Your task to perform on an android device: What is the recent news? Image 0: 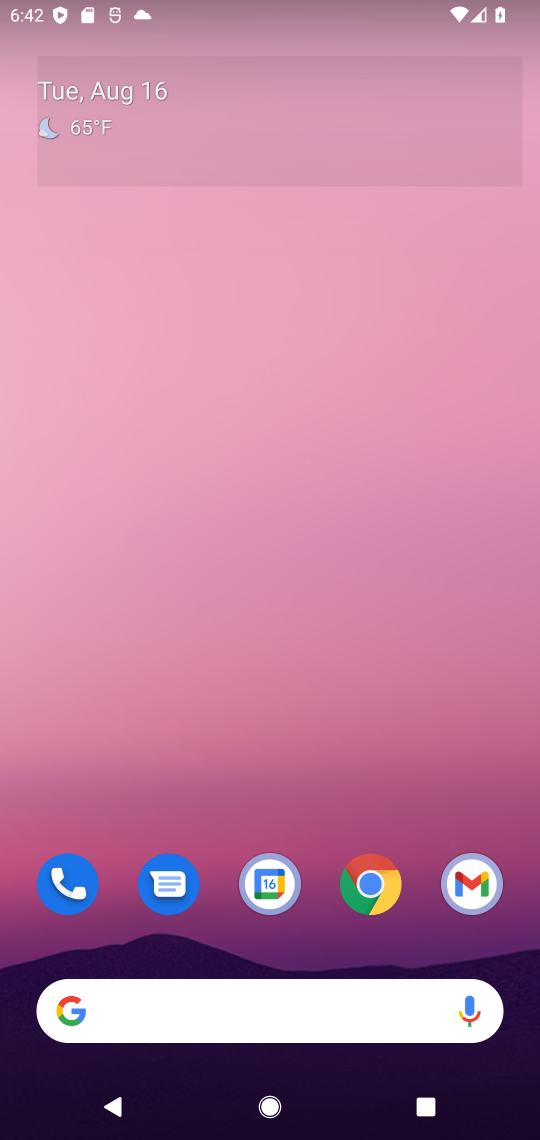
Step 0: press home button
Your task to perform on an android device: What is the recent news? Image 1: 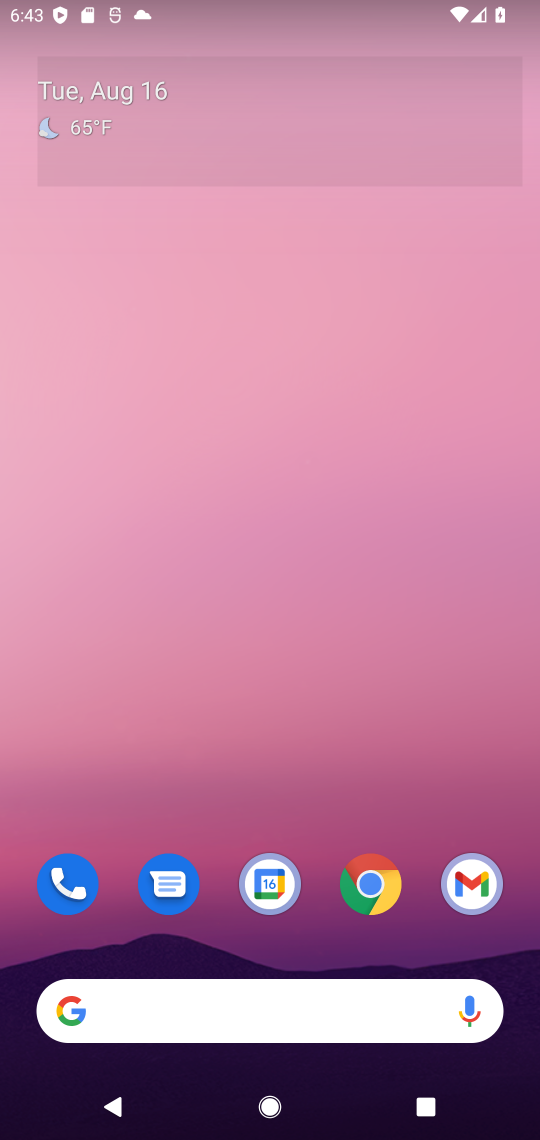
Step 1: click (70, 1009)
Your task to perform on an android device: What is the recent news? Image 2: 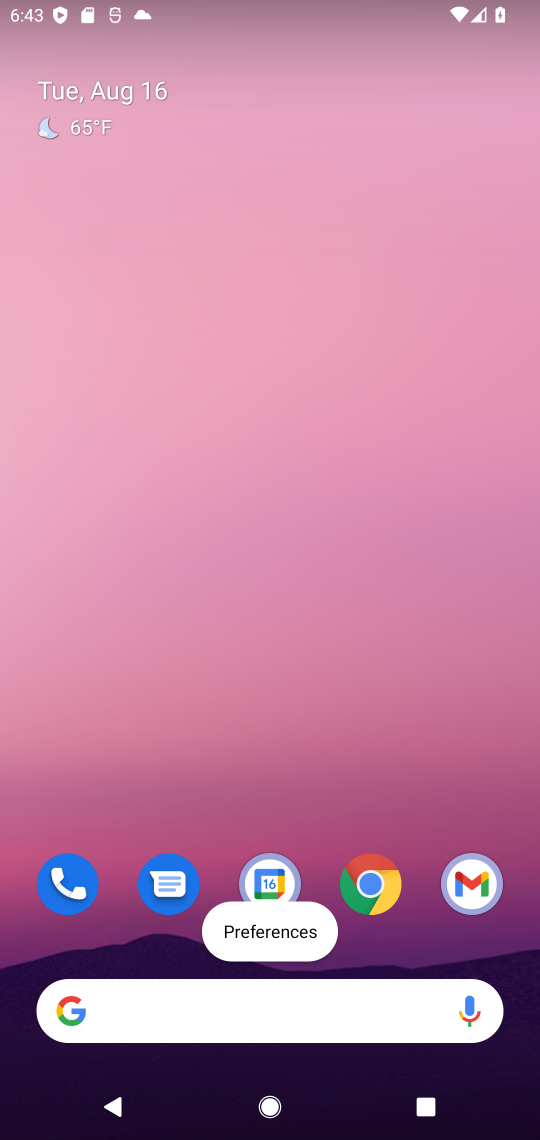
Step 2: click (60, 1009)
Your task to perform on an android device: What is the recent news? Image 3: 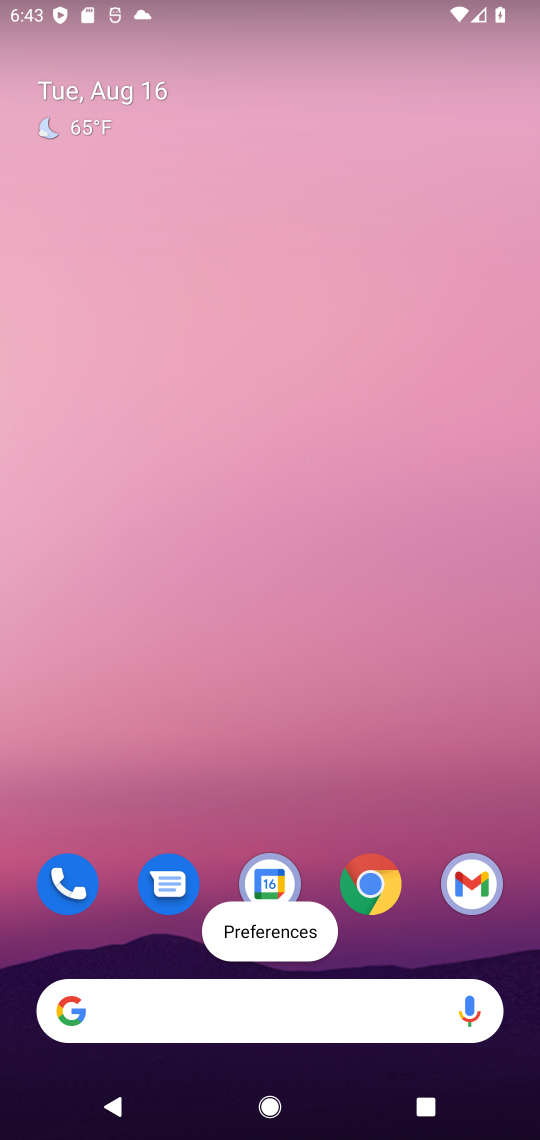
Step 3: click (72, 1019)
Your task to perform on an android device: What is the recent news? Image 4: 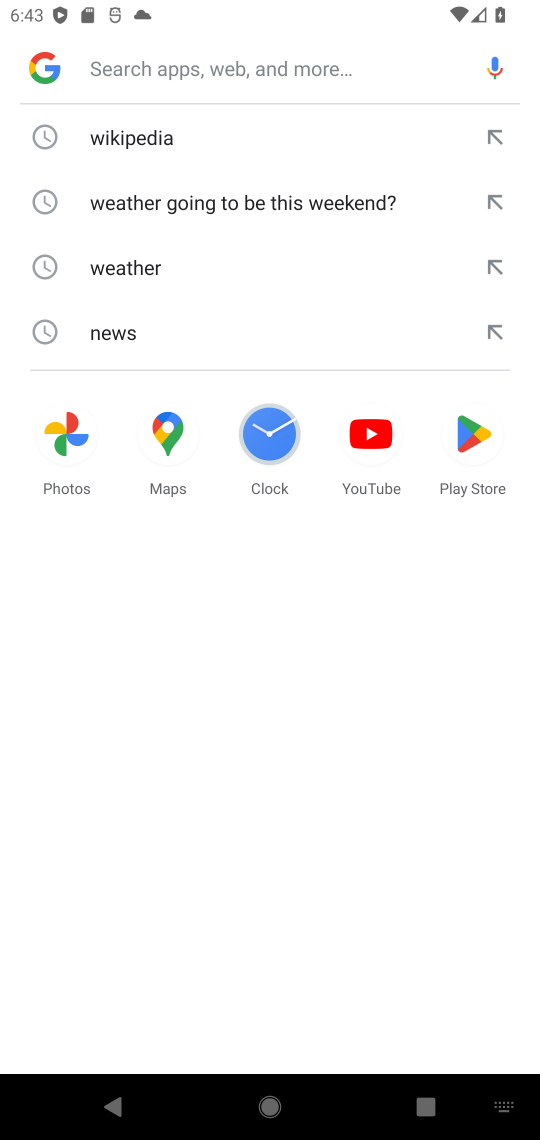
Step 4: type "recent news?"
Your task to perform on an android device: What is the recent news? Image 5: 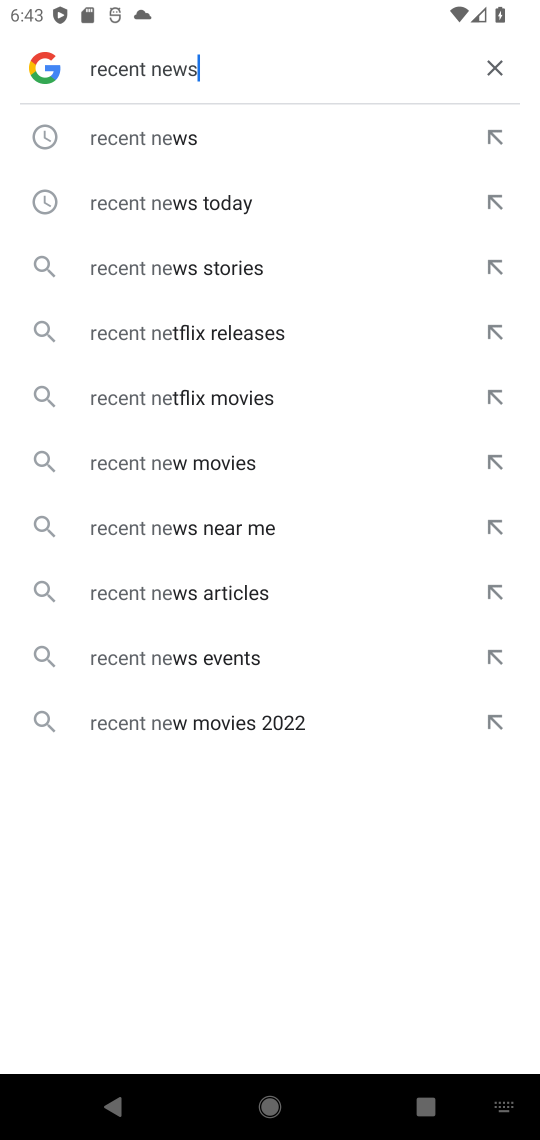
Step 5: press enter
Your task to perform on an android device: What is the recent news? Image 6: 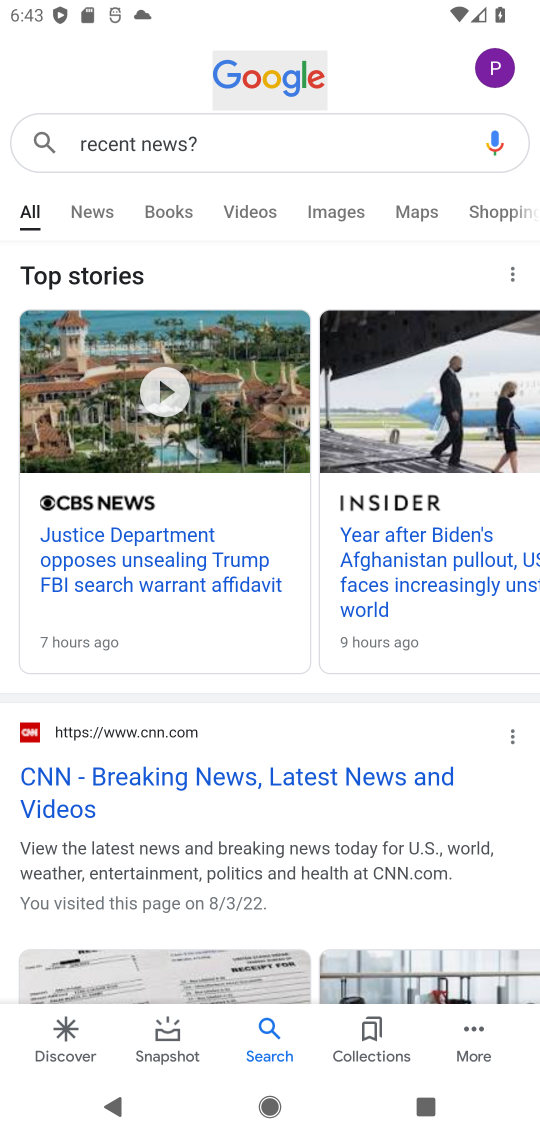
Step 6: task complete